Your task to perform on an android device: Search for a new perfume Image 0: 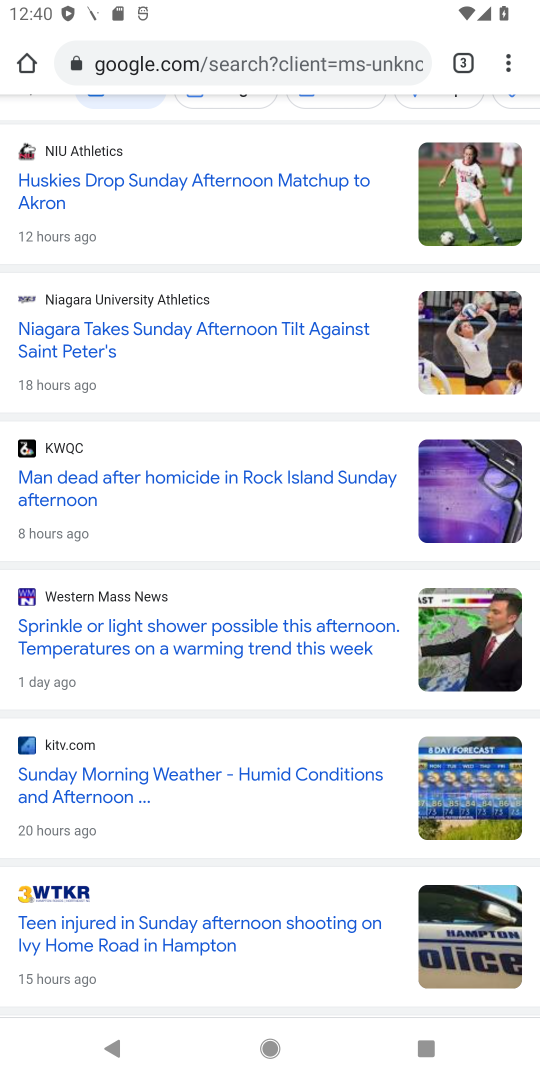
Step 0: click (209, 54)
Your task to perform on an android device: Search for a new perfume Image 1: 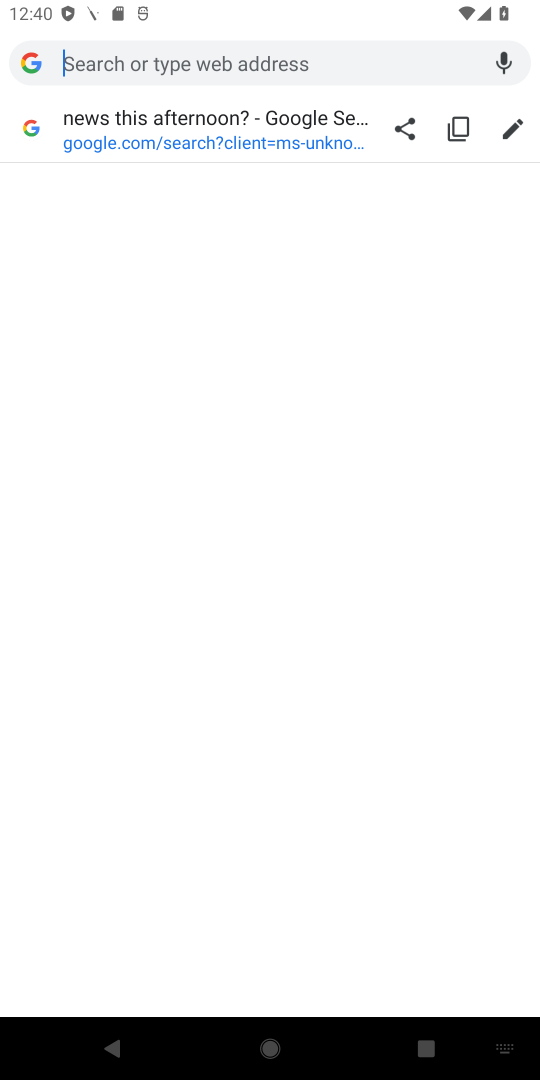
Step 1: type "new perfume"
Your task to perform on an android device: Search for a new perfume Image 2: 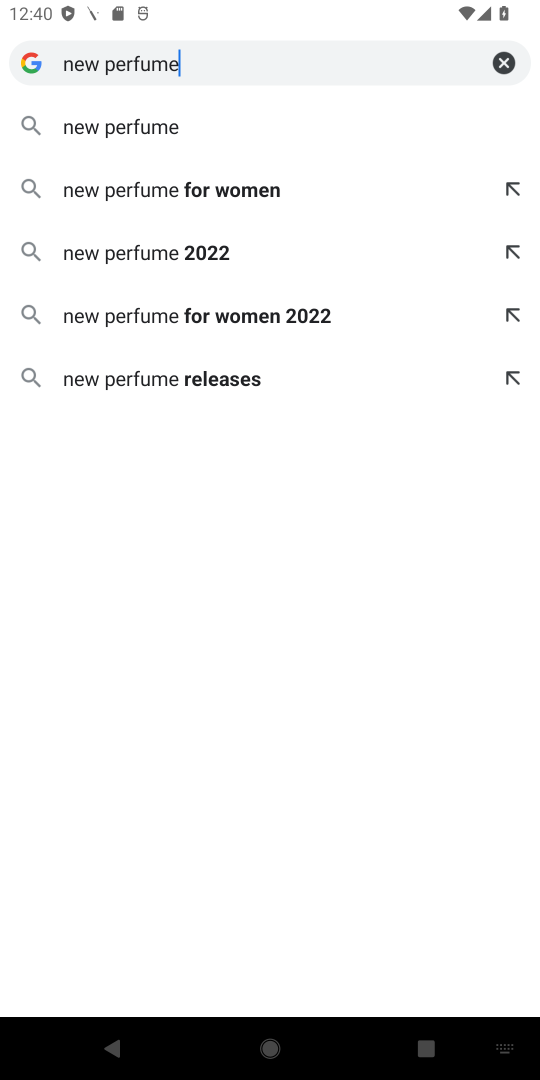
Step 2: click (193, 126)
Your task to perform on an android device: Search for a new perfume Image 3: 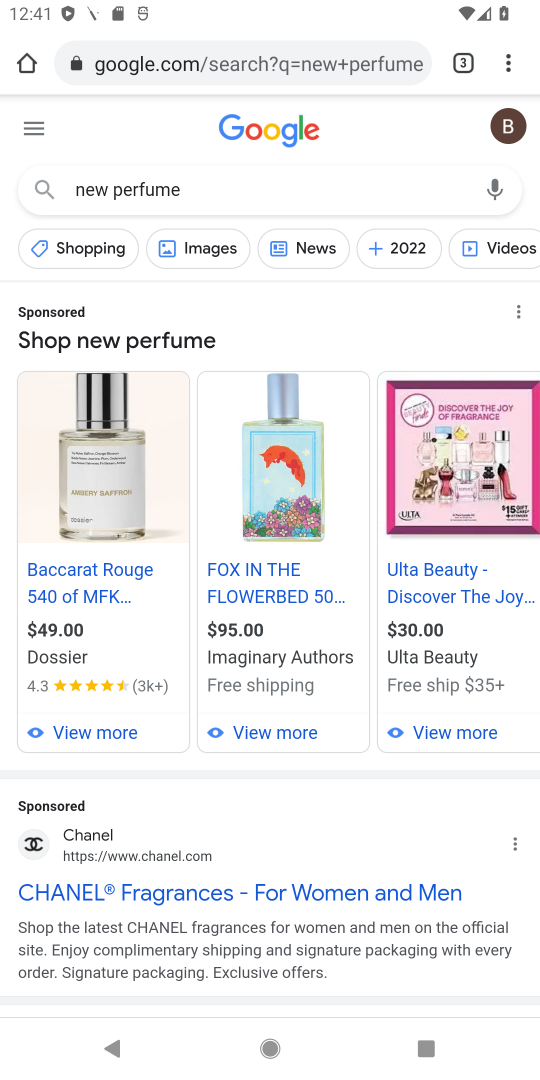
Step 3: task complete